Your task to perform on an android device: Go to battery settings Image 0: 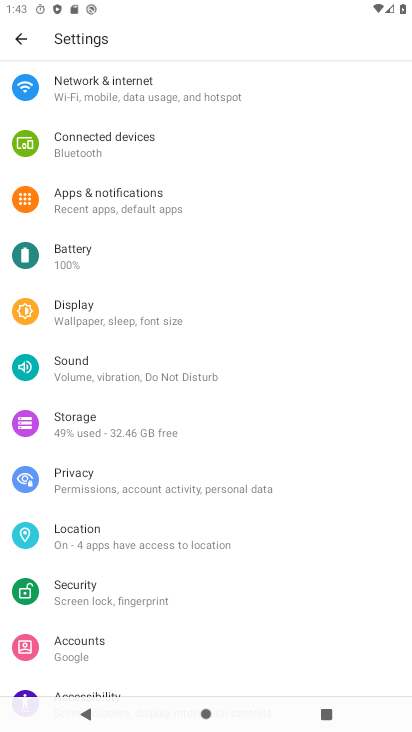
Step 0: click (187, 276)
Your task to perform on an android device: Go to battery settings Image 1: 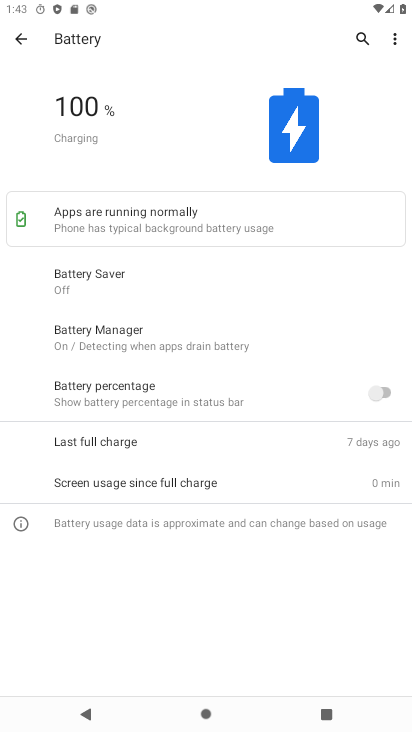
Step 1: task complete